Your task to perform on an android device: visit the assistant section in the google photos Image 0: 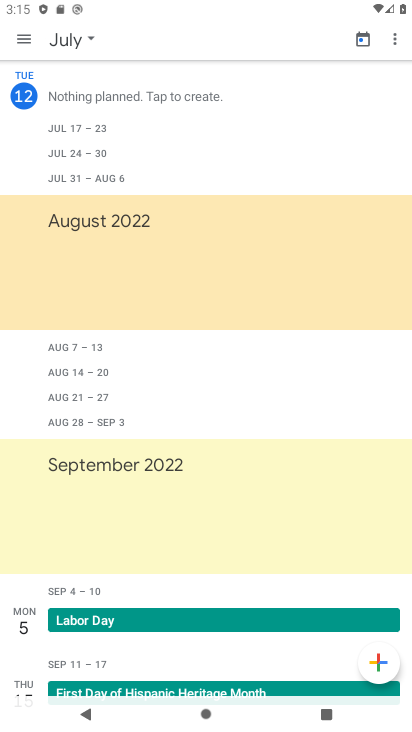
Step 0: press home button
Your task to perform on an android device: visit the assistant section in the google photos Image 1: 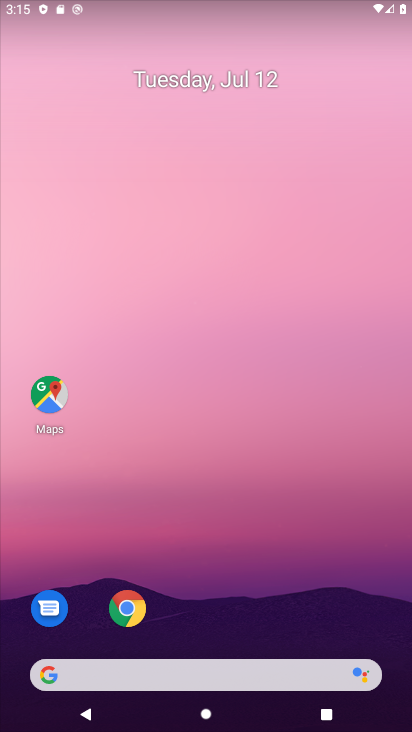
Step 1: drag from (211, 677) to (264, 196)
Your task to perform on an android device: visit the assistant section in the google photos Image 2: 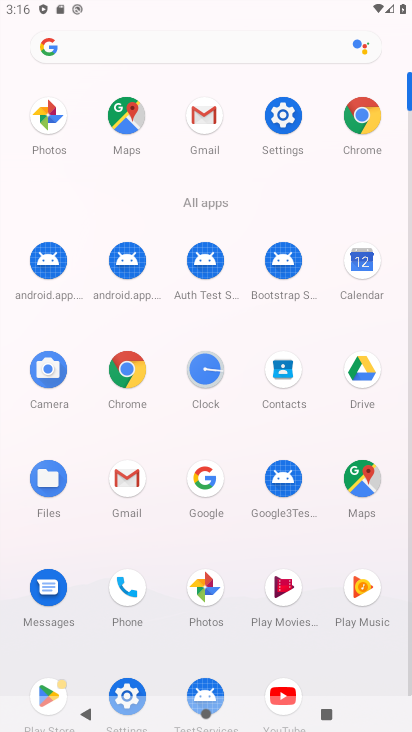
Step 2: click (194, 585)
Your task to perform on an android device: visit the assistant section in the google photos Image 3: 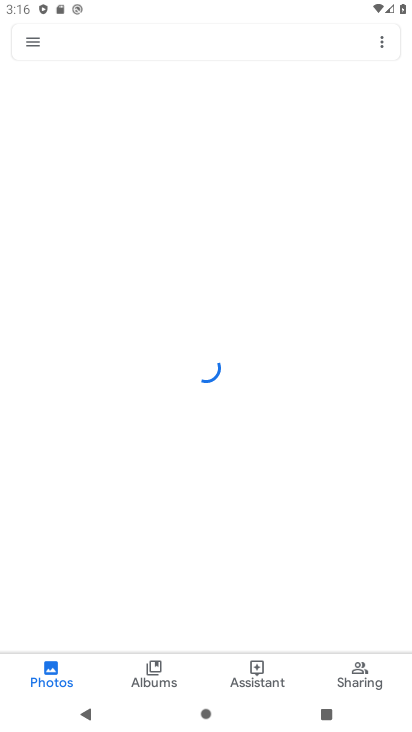
Step 3: click (252, 670)
Your task to perform on an android device: visit the assistant section in the google photos Image 4: 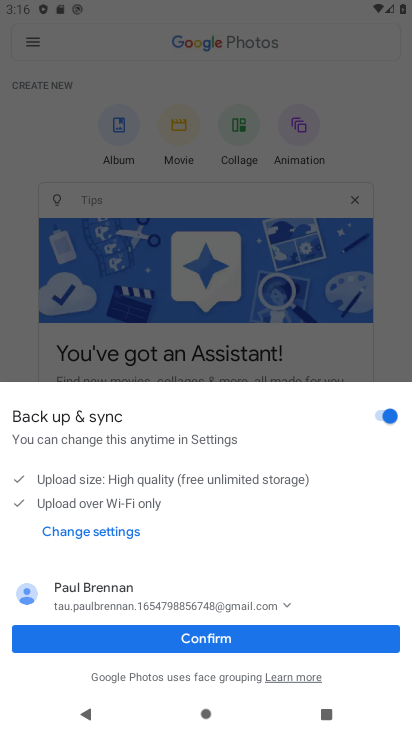
Step 4: click (204, 640)
Your task to perform on an android device: visit the assistant section in the google photos Image 5: 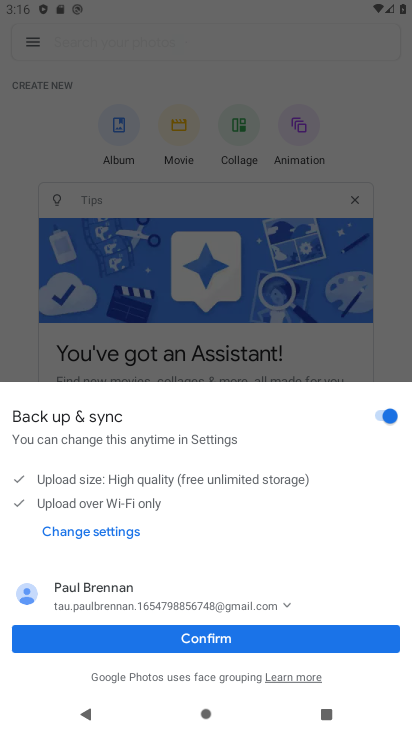
Step 5: click (205, 640)
Your task to perform on an android device: visit the assistant section in the google photos Image 6: 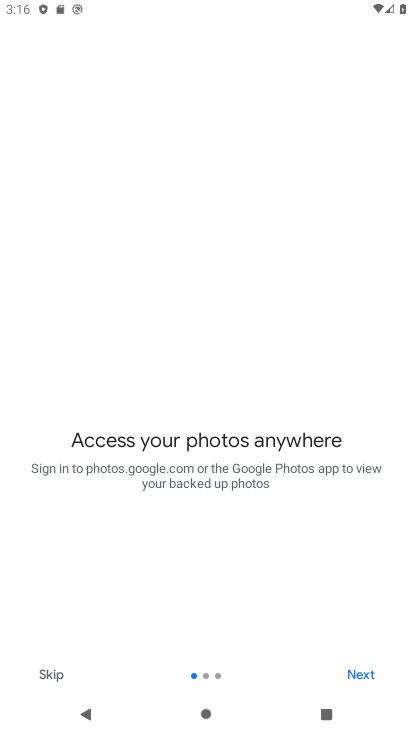
Step 6: click (353, 662)
Your task to perform on an android device: visit the assistant section in the google photos Image 7: 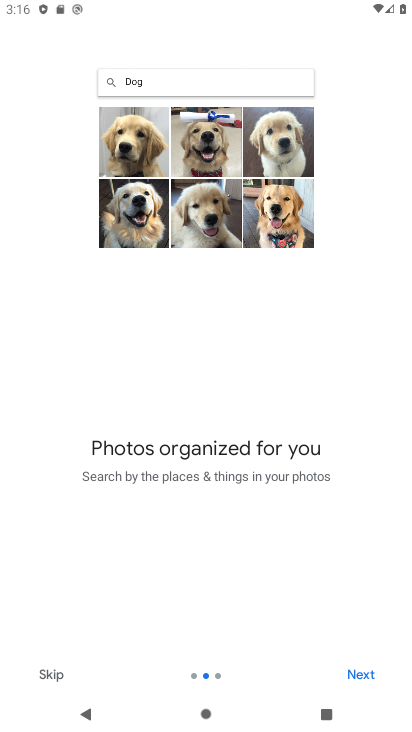
Step 7: click (362, 682)
Your task to perform on an android device: visit the assistant section in the google photos Image 8: 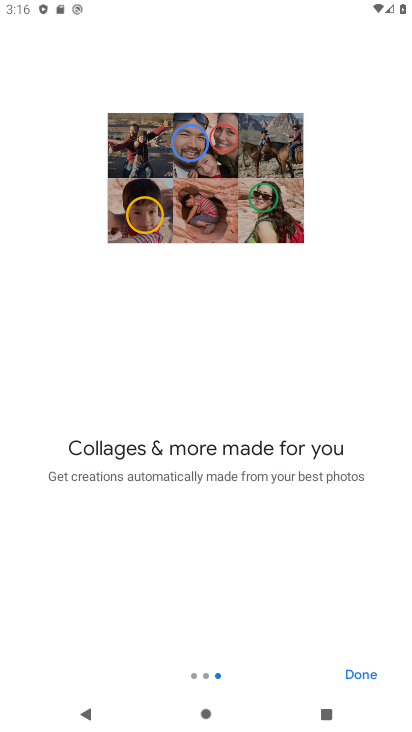
Step 8: click (362, 682)
Your task to perform on an android device: visit the assistant section in the google photos Image 9: 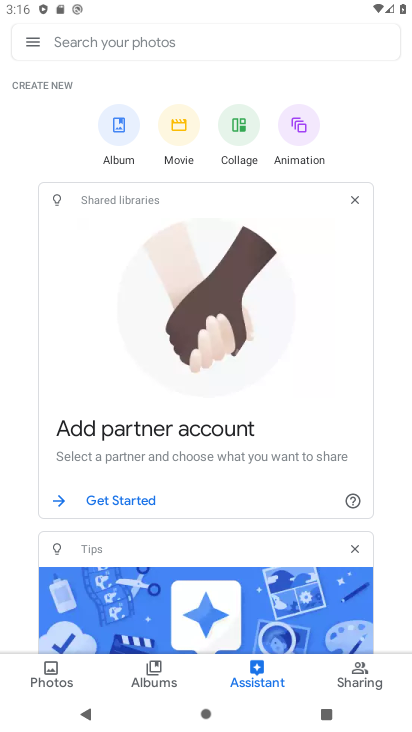
Step 9: task complete